Your task to perform on an android device: show emergency info Image 0: 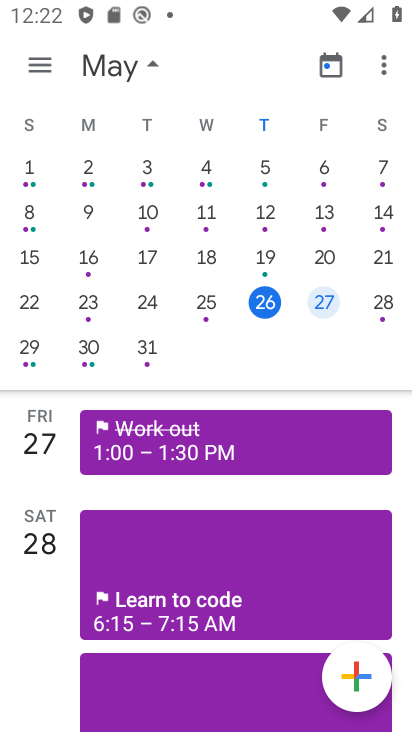
Step 0: press home button
Your task to perform on an android device: show emergency info Image 1: 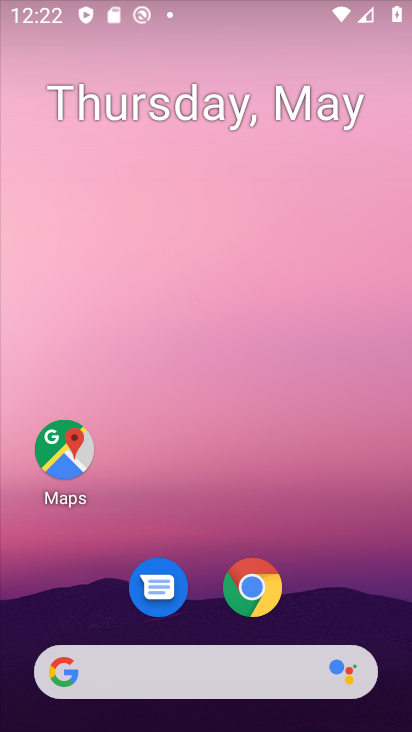
Step 1: drag from (216, 724) to (341, 41)
Your task to perform on an android device: show emergency info Image 2: 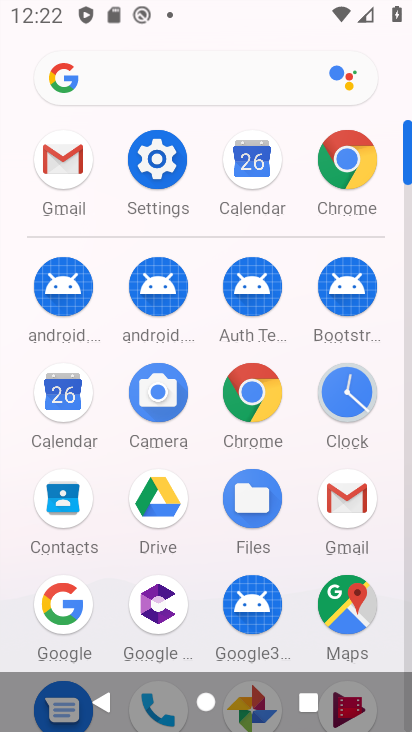
Step 2: click (173, 167)
Your task to perform on an android device: show emergency info Image 3: 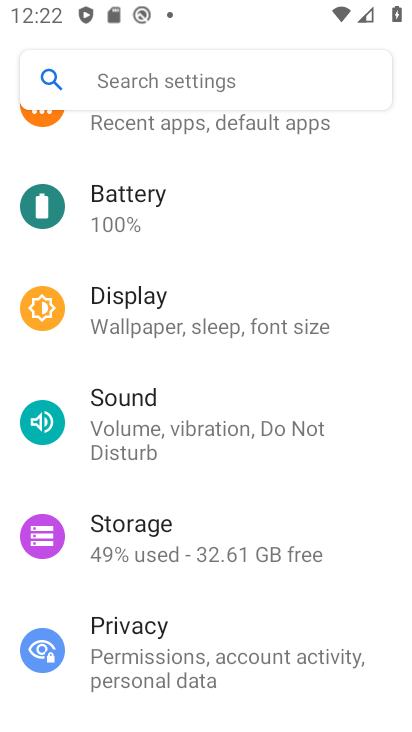
Step 3: drag from (313, 591) to (382, 158)
Your task to perform on an android device: show emergency info Image 4: 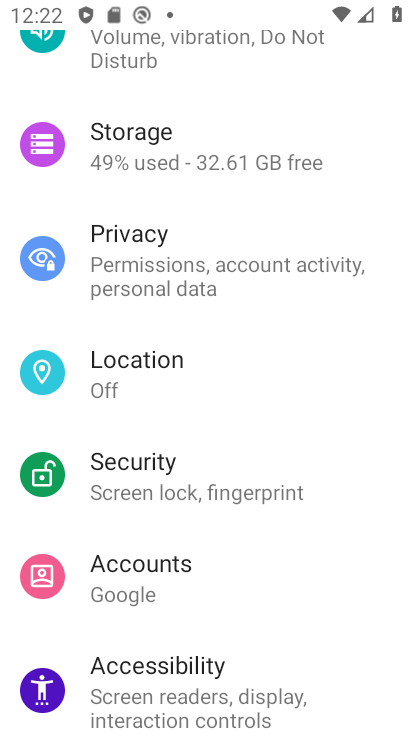
Step 4: drag from (218, 602) to (383, 198)
Your task to perform on an android device: show emergency info Image 5: 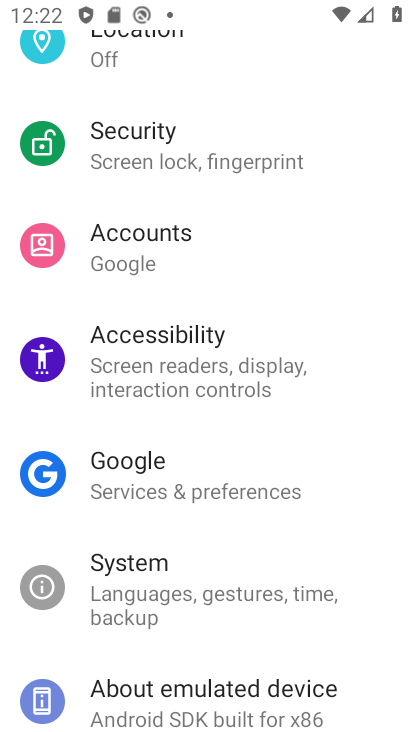
Step 5: click (186, 713)
Your task to perform on an android device: show emergency info Image 6: 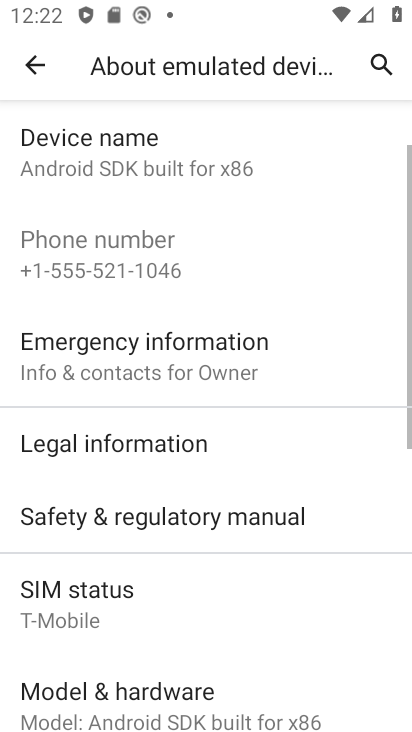
Step 6: click (233, 384)
Your task to perform on an android device: show emergency info Image 7: 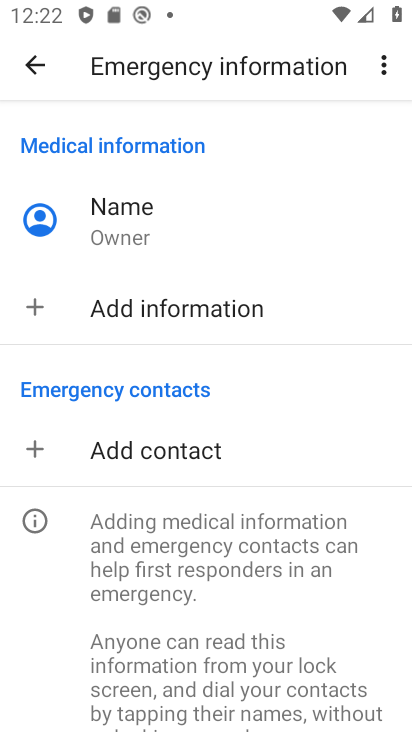
Step 7: task complete